Your task to perform on an android device: turn pop-ups off in chrome Image 0: 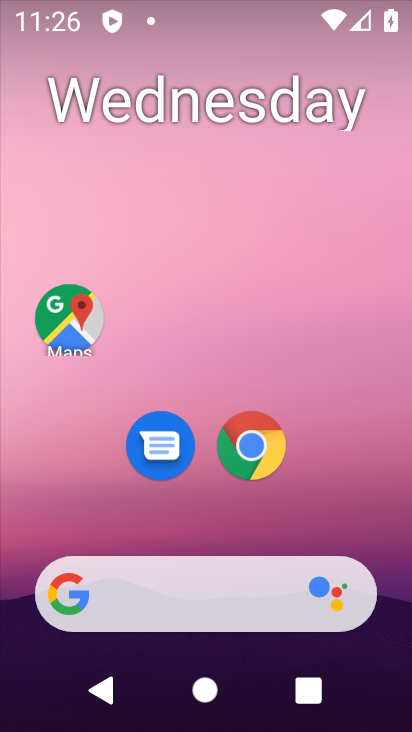
Step 0: click (256, 455)
Your task to perform on an android device: turn pop-ups off in chrome Image 1: 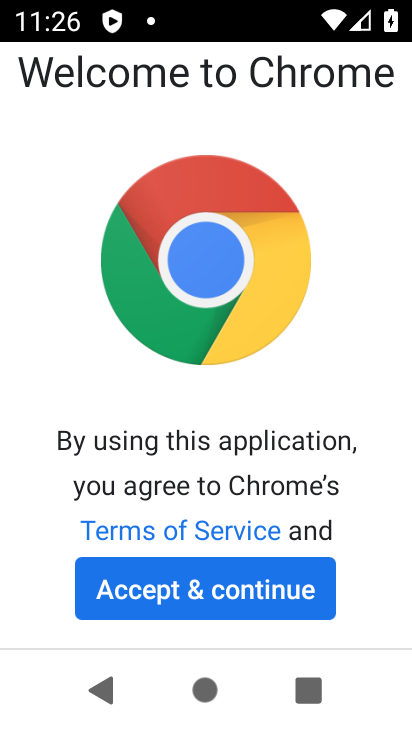
Step 1: click (213, 572)
Your task to perform on an android device: turn pop-ups off in chrome Image 2: 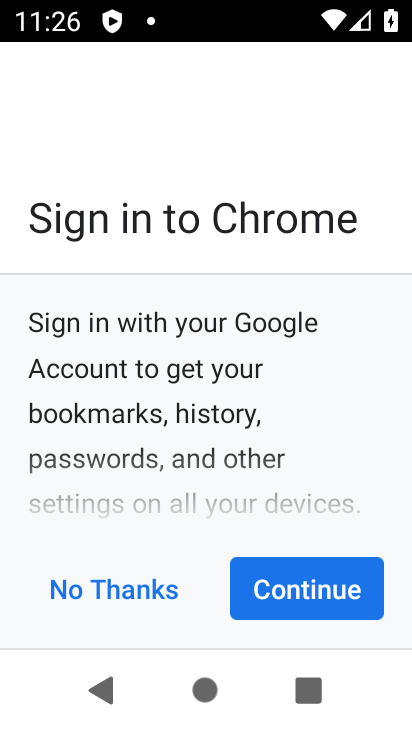
Step 2: click (312, 582)
Your task to perform on an android device: turn pop-ups off in chrome Image 3: 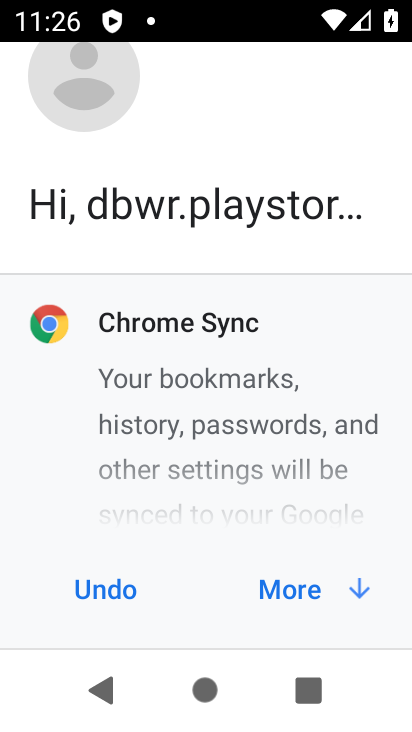
Step 3: click (302, 597)
Your task to perform on an android device: turn pop-ups off in chrome Image 4: 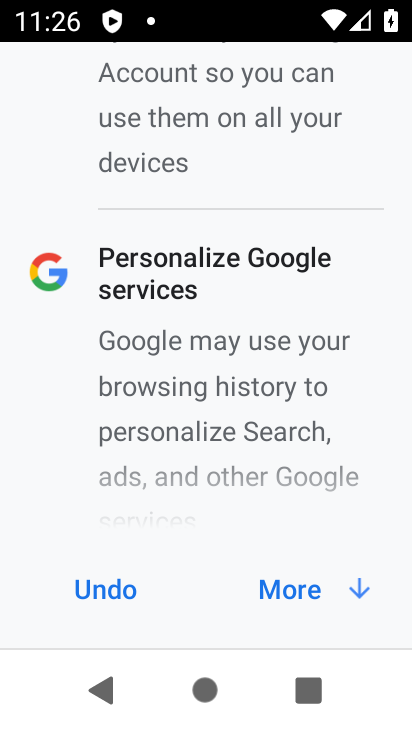
Step 4: click (303, 597)
Your task to perform on an android device: turn pop-ups off in chrome Image 5: 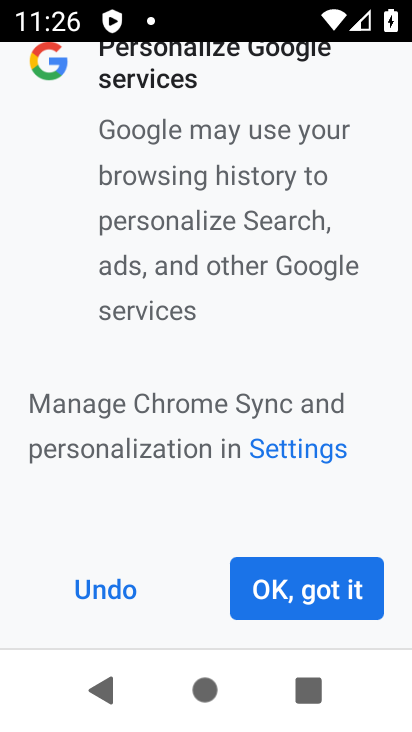
Step 5: click (303, 597)
Your task to perform on an android device: turn pop-ups off in chrome Image 6: 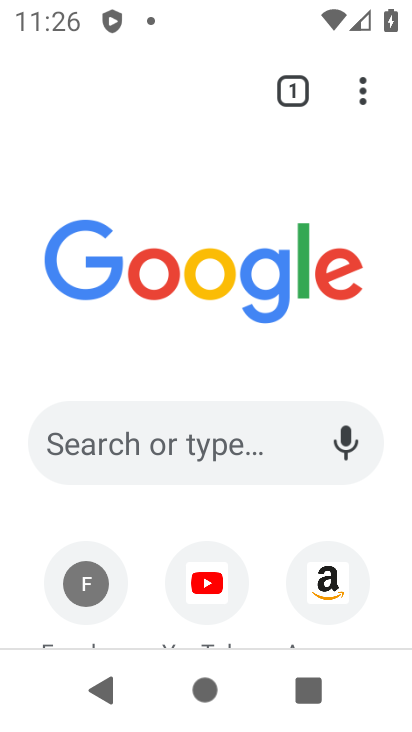
Step 6: drag from (341, 66) to (349, 707)
Your task to perform on an android device: turn pop-ups off in chrome Image 7: 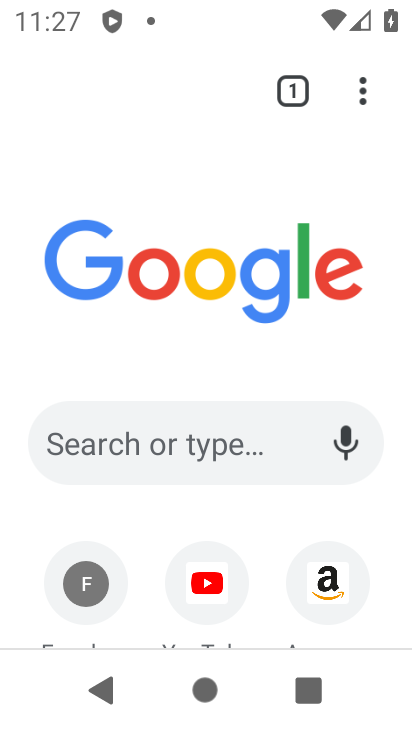
Step 7: drag from (363, 93) to (251, 472)
Your task to perform on an android device: turn pop-ups off in chrome Image 8: 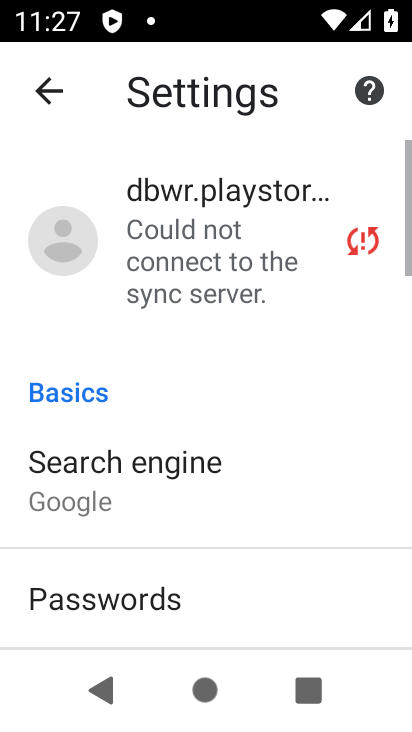
Step 8: drag from (224, 598) to (203, 252)
Your task to perform on an android device: turn pop-ups off in chrome Image 9: 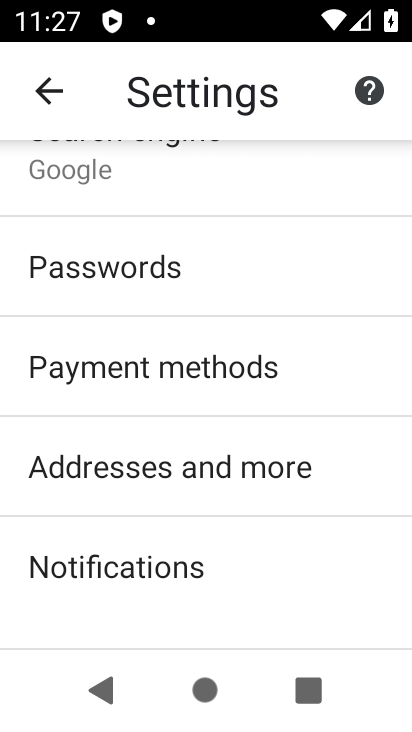
Step 9: drag from (214, 628) to (195, 236)
Your task to perform on an android device: turn pop-ups off in chrome Image 10: 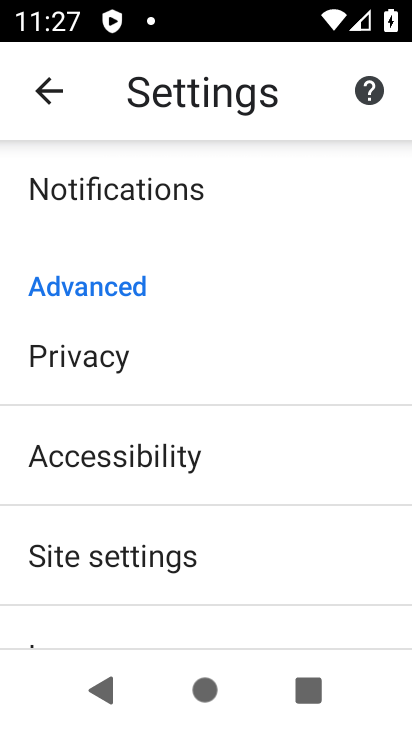
Step 10: click (154, 564)
Your task to perform on an android device: turn pop-ups off in chrome Image 11: 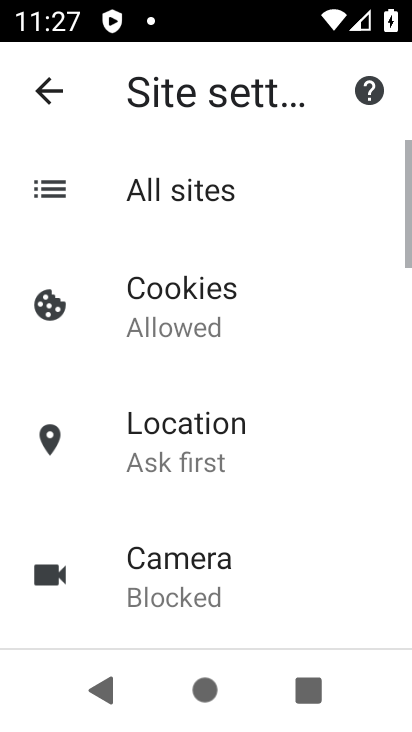
Step 11: drag from (241, 587) to (292, 161)
Your task to perform on an android device: turn pop-ups off in chrome Image 12: 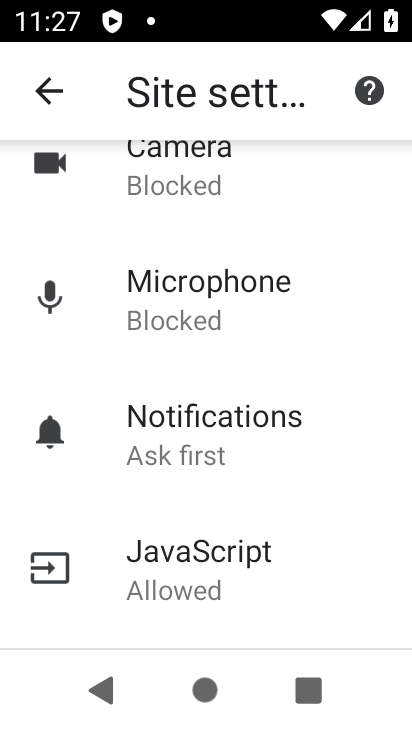
Step 12: drag from (241, 593) to (239, 212)
Your task to perform on an android device: turn pop-ups off in chrome Image 13: 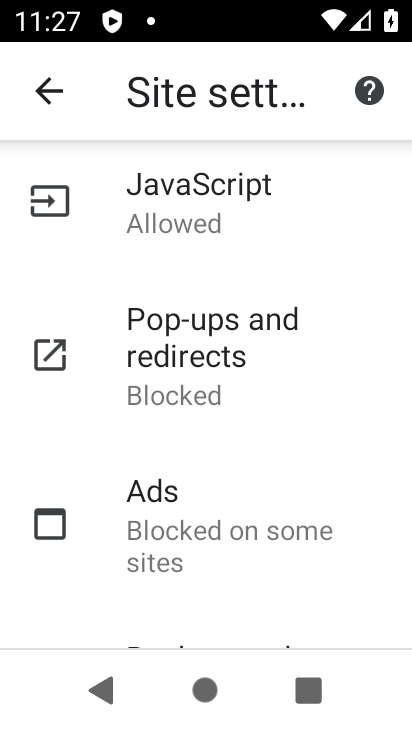
Step 13: click (214, 365)
Your task to perform on an android device: turn pop-ups off in chrome Image 14: 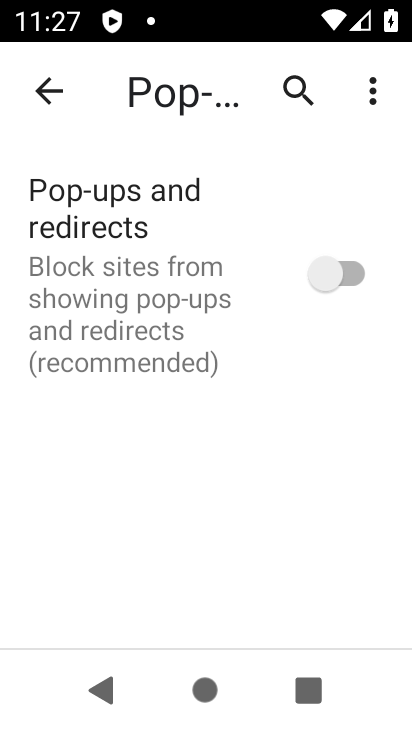
Step 14: task complete